Your task to perform on an android device: change the clock display to analog Image 0: 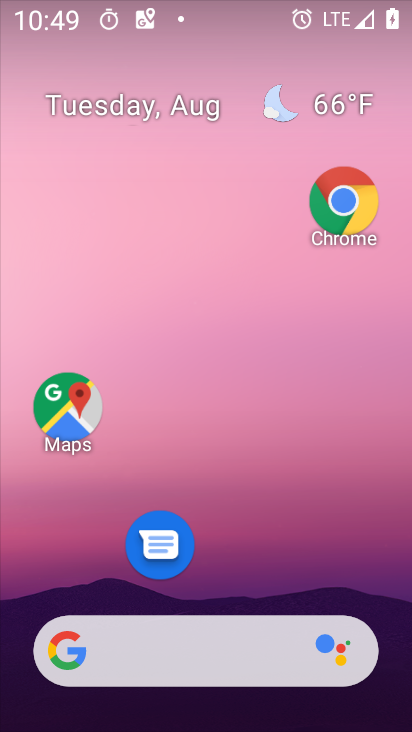
Step 0: drag from (241, 529) to (254, 10)
Your task to perform on an android device: change the clock display to analog Image 1: 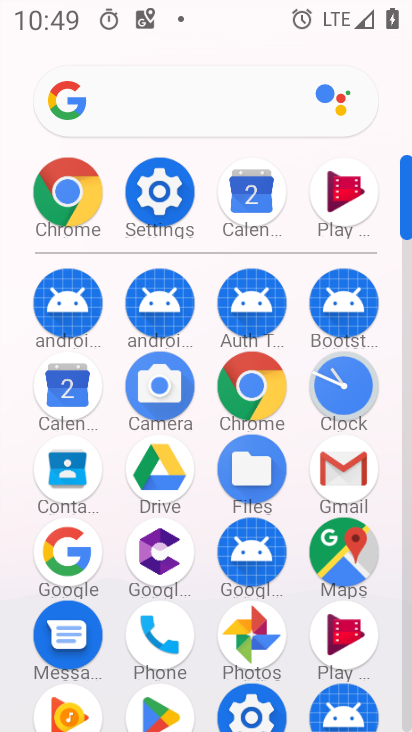
Step 1: click (347, 409)
Your task to perform on an android device: change the clock display to analog Image 2: 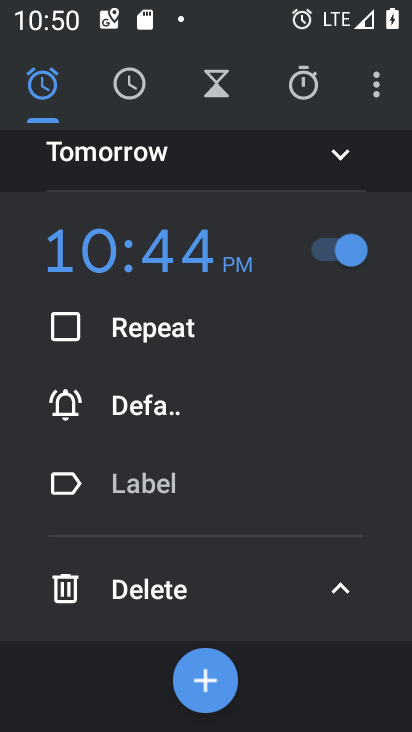
Step 2: click (370, 93)
Your task to perform on an android device: change the clock display to analog Image 3: 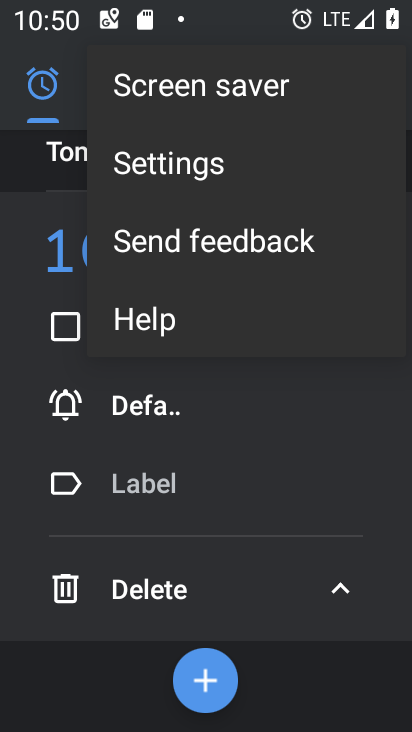
Step 3: click (214, 168)
Your task to perform on an android device: change the clock display to analog Image 4: 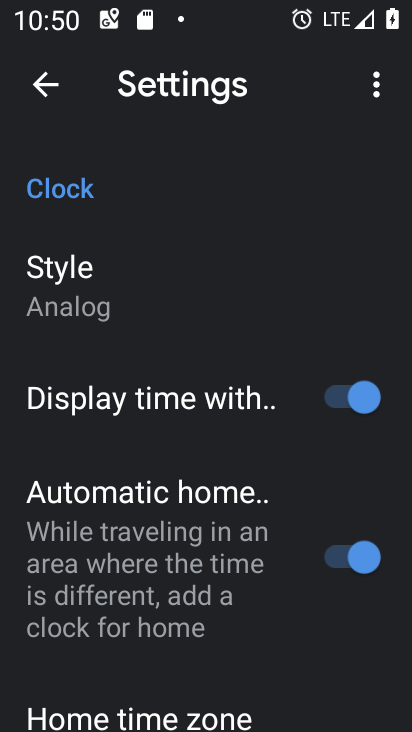
Step 4: click (102, 288)
Your task to perform on an android device: change the clock display to analog Image 5: 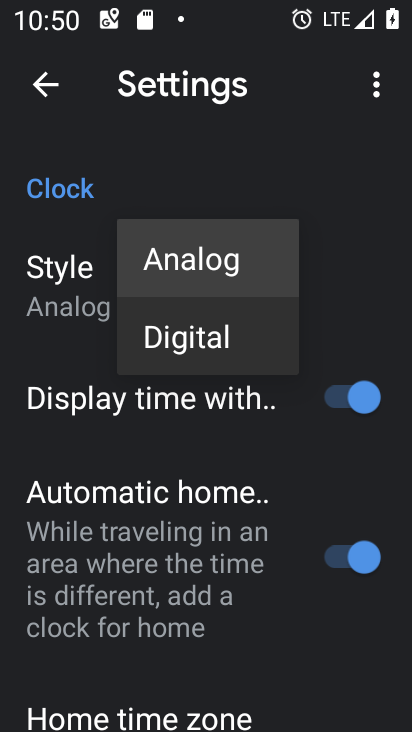
Step 5: task complete